Your task to perform on an android device: turn smart compose on in the gmail app Image 0: 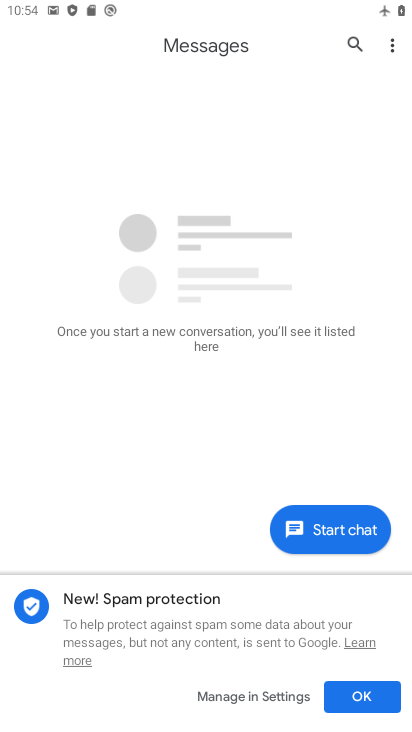
Step 0: press back button
Your task to perform on an android device: turn smart compose on in the gmail app Image 1: 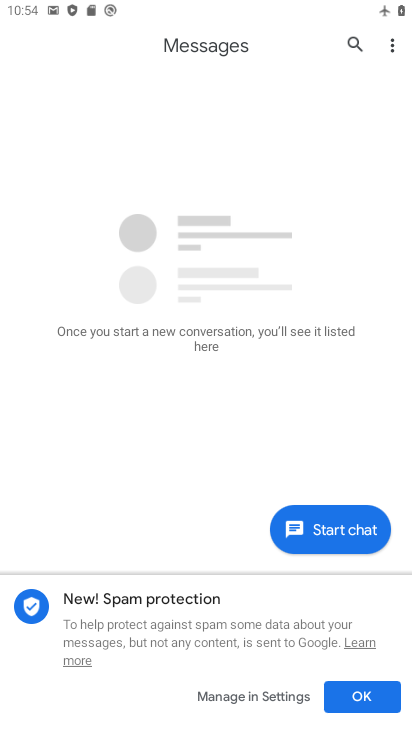
Step 1: press home button
Your task to perform on an android device: turn smart compose on in the gmail app Image 2: 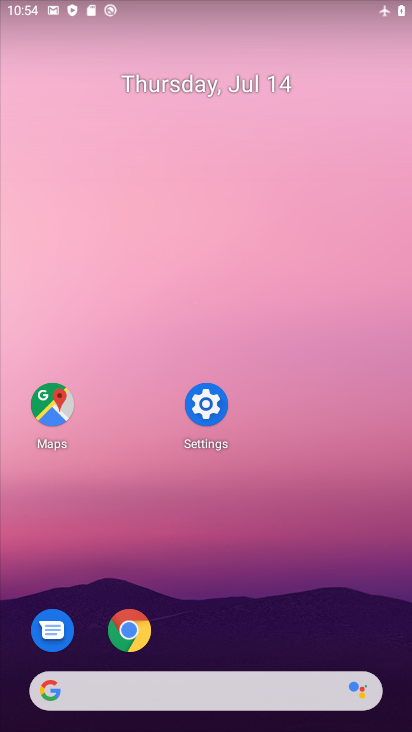
Step 2: drag from (377, 561) to (351, 88)
Your task to perform on an android device: turn smart compose on in the gmail app Image 3: 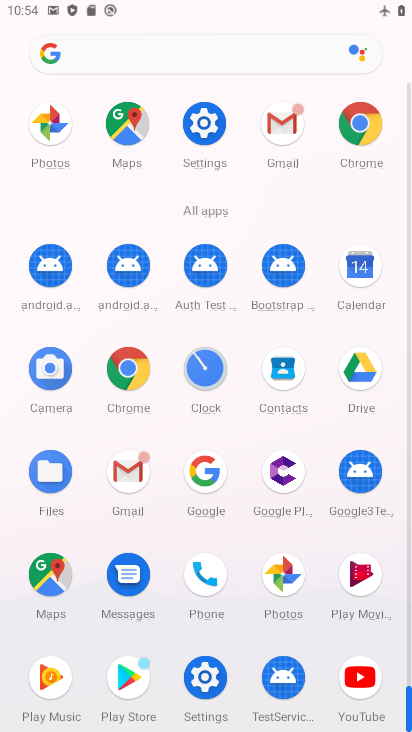
Step 3: drag from (281, 127) to (267, 399)
Your task to perform on an android device: turn smart compose on in the gmail app Image 4: 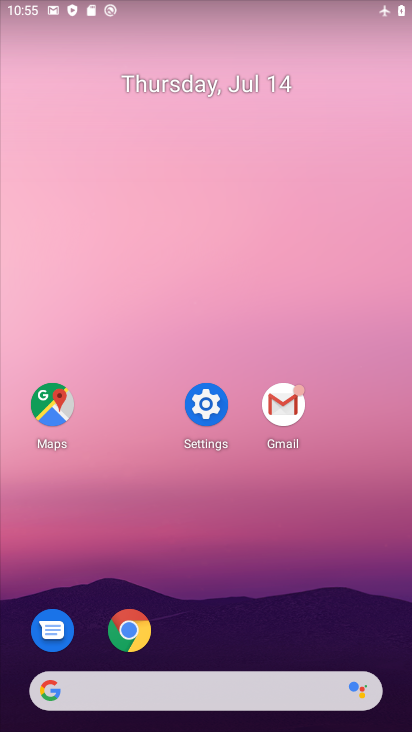
Step 4: click (278, 403)
Your task to perform on an android device: turn smart compose on in the gmail app Image 5: 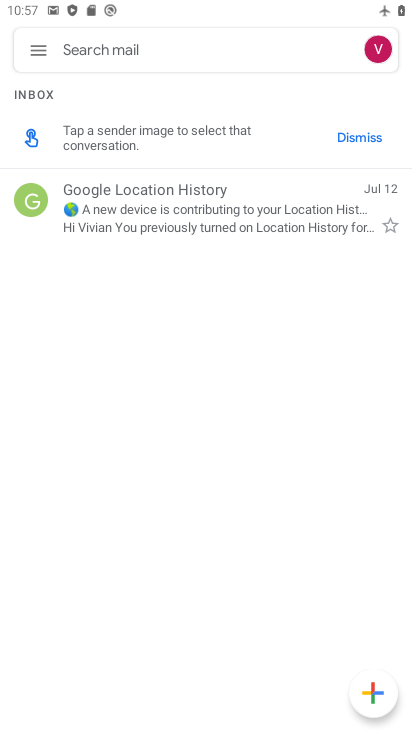
Step 5: click (31, 46)
Your task to perform on an android device: turn smart compose on in the gmail app Image 6: 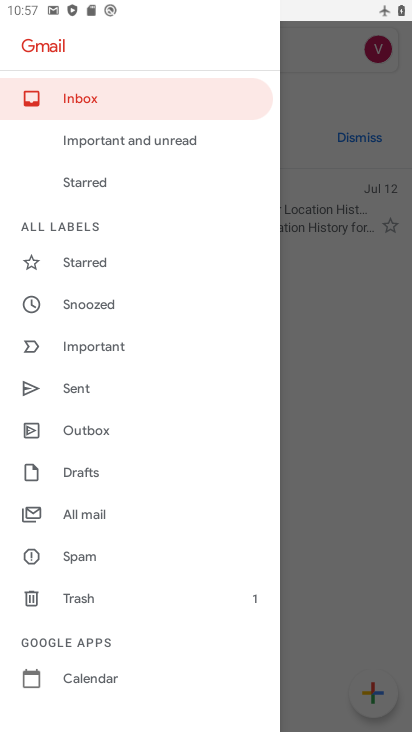
Step 6: drag from (229, 672) to (184, 239)
Your task to perform on an android device: turn smart compose on in the gmail app Image 7: 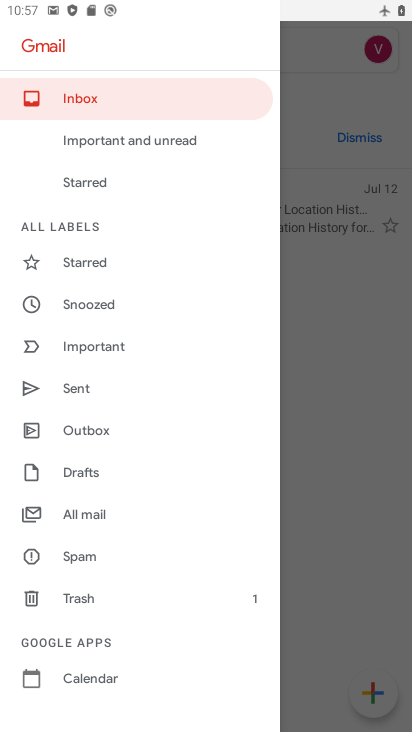
Step 7: drag from (176, 619) to (163, 237)
Your task to perform on an android device: turn smart compose on in the gmail app Image 8: 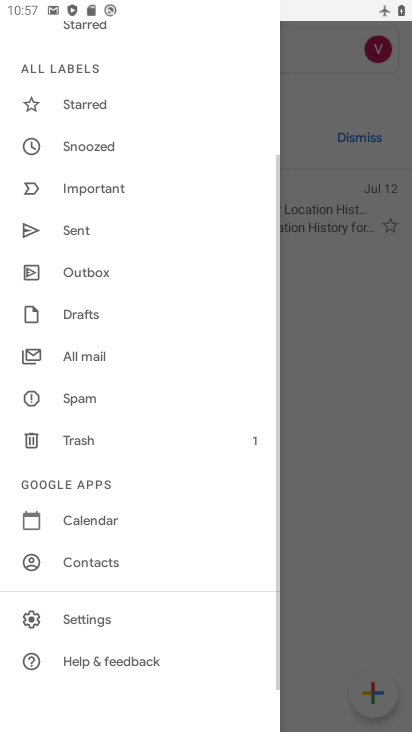
Step 8: click (58, 619)
Your task to perform on an android device: turn smart compose on in the gmail app Image 9: 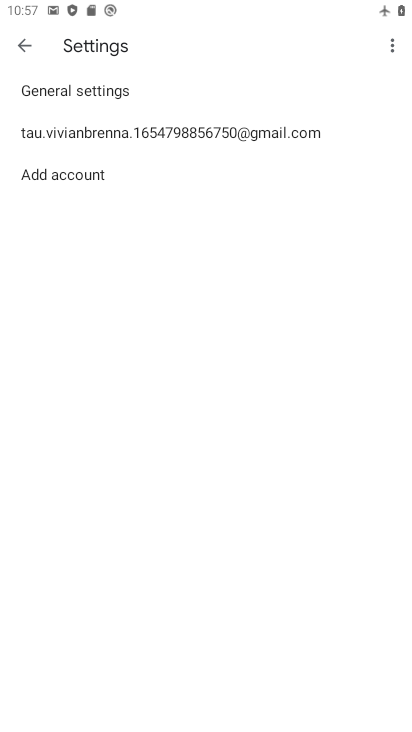
Step 9: click (82, 133)
Your task to perform on an android device: turn smart compose on in the gmail app Image 10: 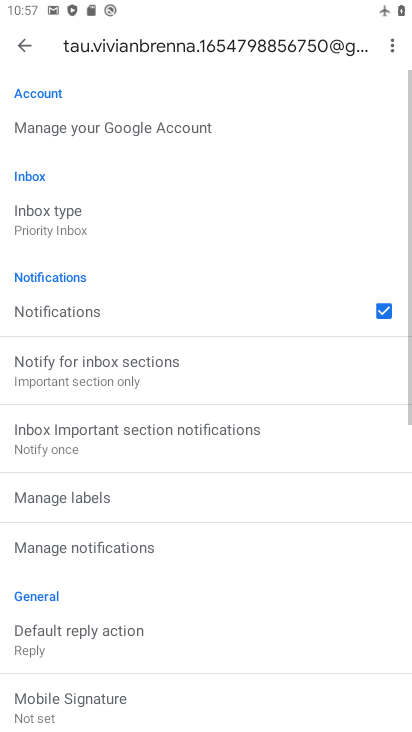
Step 10: task complete